Your task to perform on an android device: Go to ESPN.com Image 0: 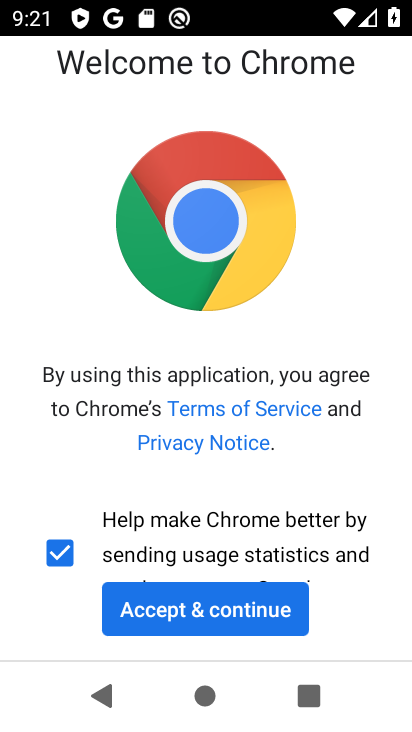
Step 0: click (250, 604)
Your task to perform on an android device: Go to ESPN.com Image 1: 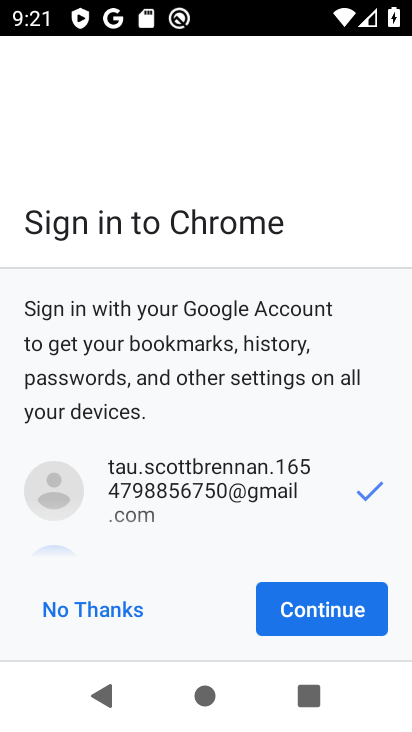
Step 1: click (308, 612)
Your task to perform on an android device: Go to ESPN.com Image 2: 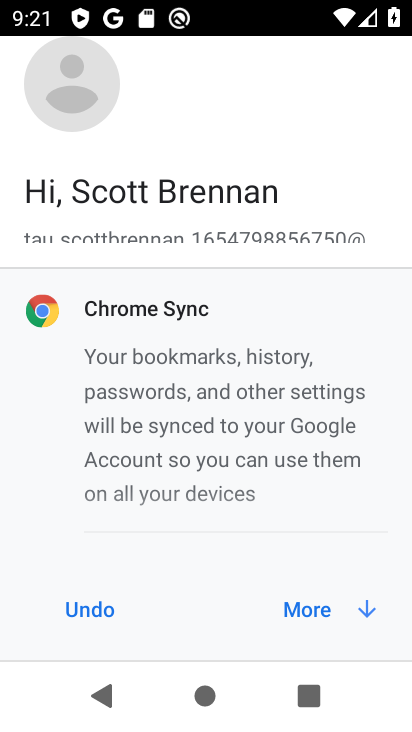
Step 2: click (308, 612)
Your task to perform on an android device: Go to ESPN.com Image 3: 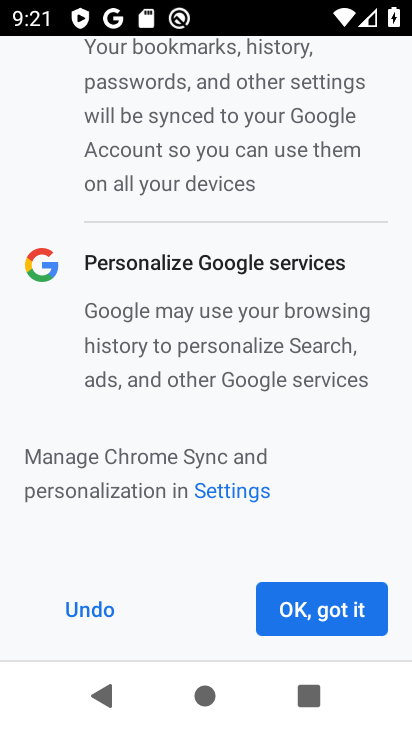
Step 3: click (308, 612)
Your task to perform on an android device: Go to ESPN.com Image 4: 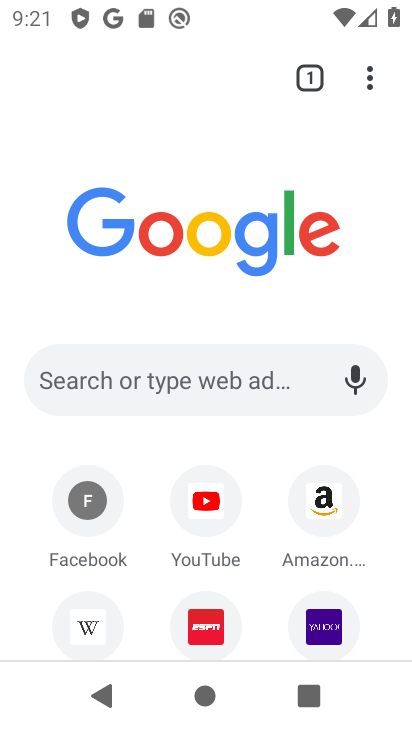
Step 4: drag from (251, 639) to (250, 296)
Your task to perform on an android device: Go to ESPN.com Image 5: 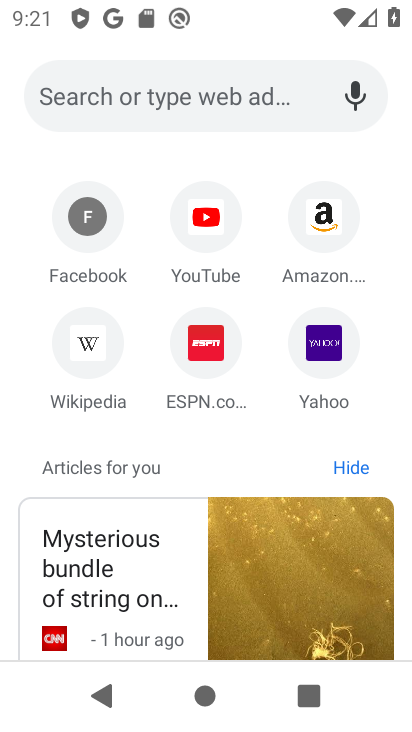
Step 5: click (210, 350)
Your task to perform on an android device: Go to ESPN.com Image 6: 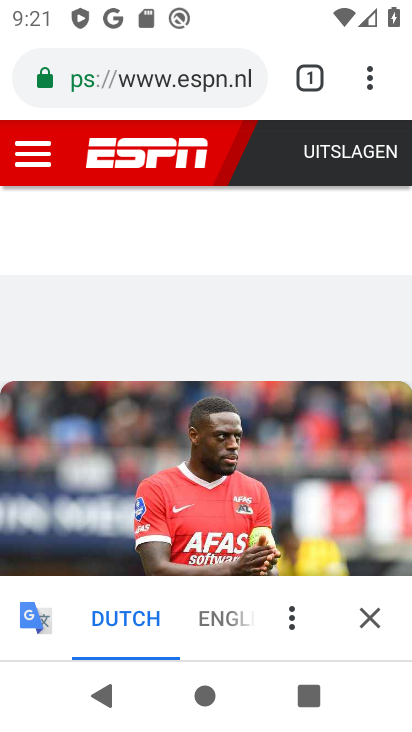
Step 6: task complete